Your task to perform on an android device: Go to CNN.com Image 0: 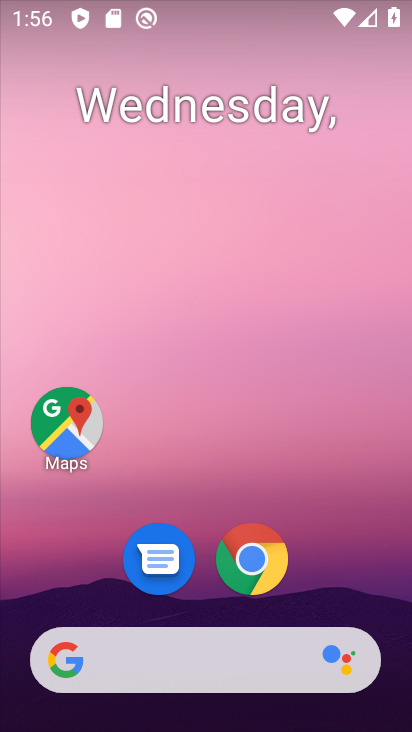
Step 0: press home button
Your task to perform on an android device: Go to CNN.com Image 1: 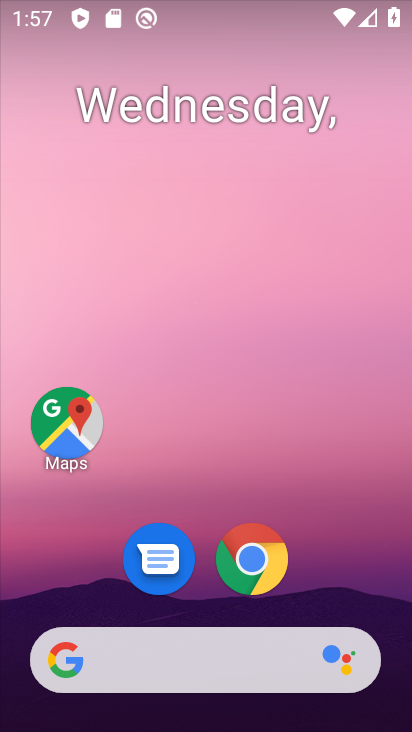
Step 1: click (264, 569)
Your task to perform on an android device: Go to CNN.com Image 2: 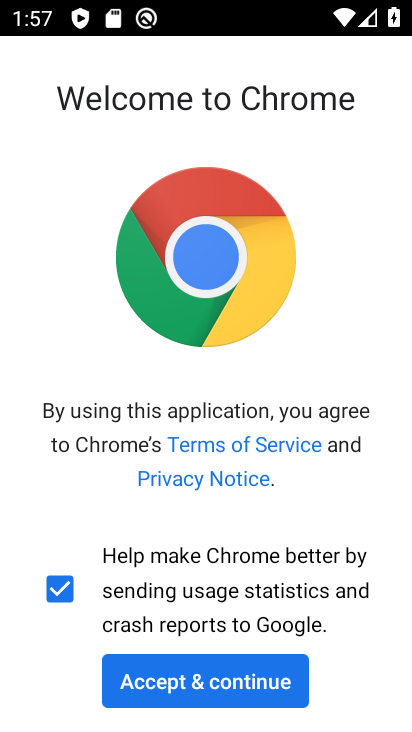
Step 2: click (233, 692)
Your task to perform on an android device: Go to CNN.com Image 3: 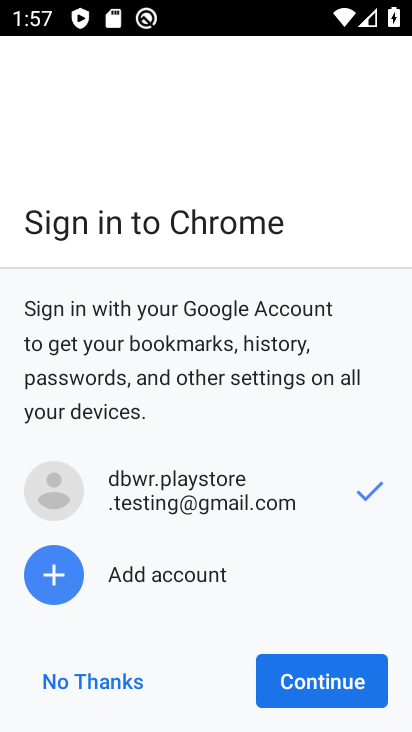
Step 3: click (297, 664)
Your task to perform on an android device: Go to CNN.com Image 4: 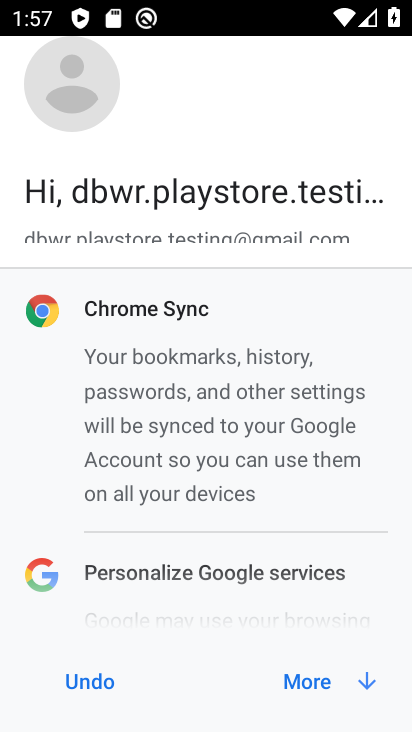
Step 4: click (304, 680)
Your task to perform on an android device: Go to CNN.com Image 5: 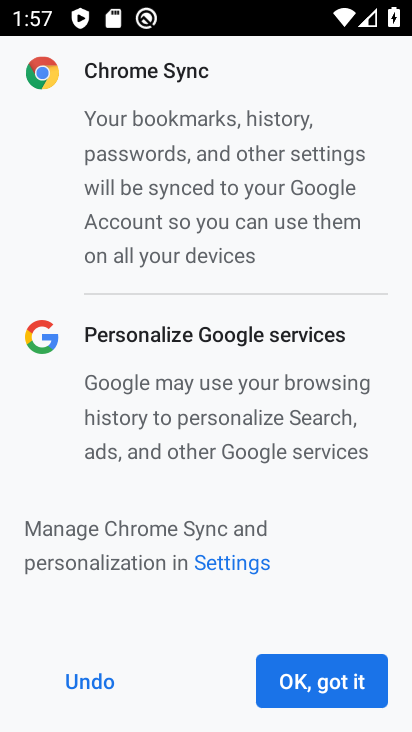
Step 5: click (360, 690)
Your task to perform on an android device: Go to CNN.com Image 6: 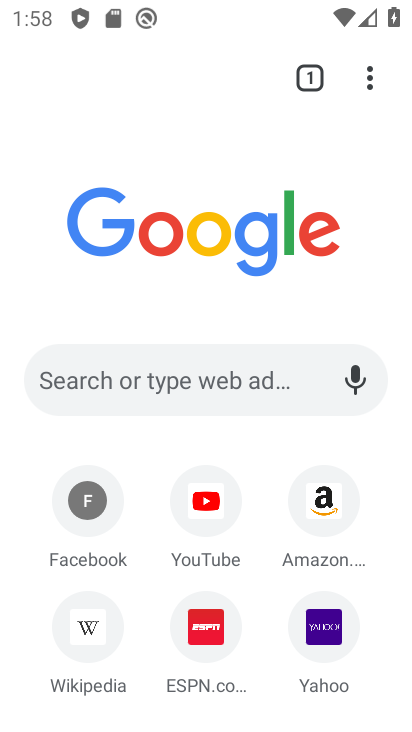
Step 6: click (261, 377)
Your task to perform on an android device: Go to CNN.com Image 7: 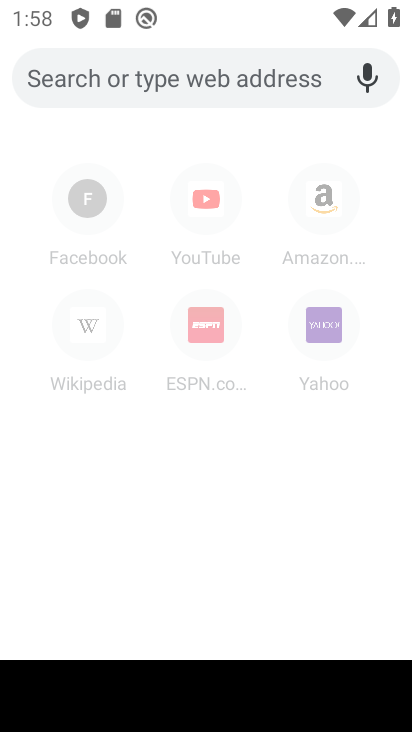
Step 7: type " CNN.com"
Your task to perform on an android device: Go to CNN.com Image 8: 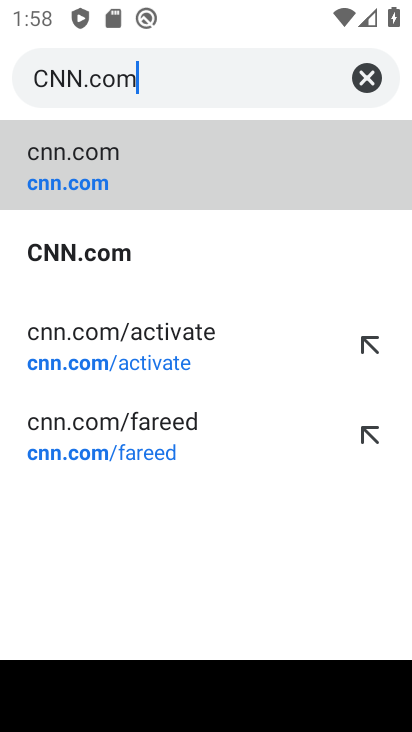
Step 8: click (209, 138)
Your task to perform on an android device: Go to CNN.com Image 9: 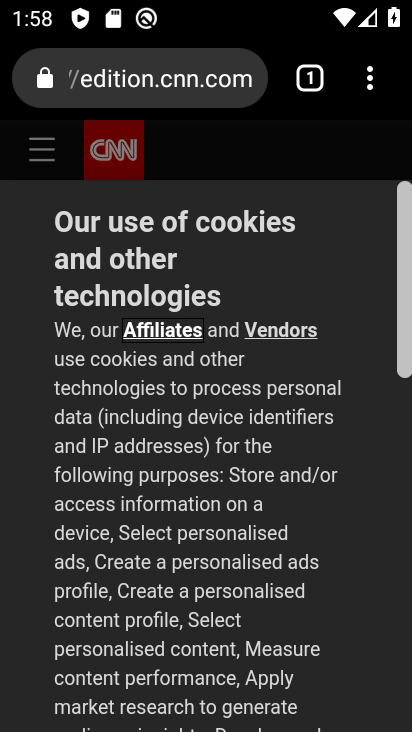
Step 9: task complete